Your task to perform on an android device: check the backup settings in the google photos Image 0: 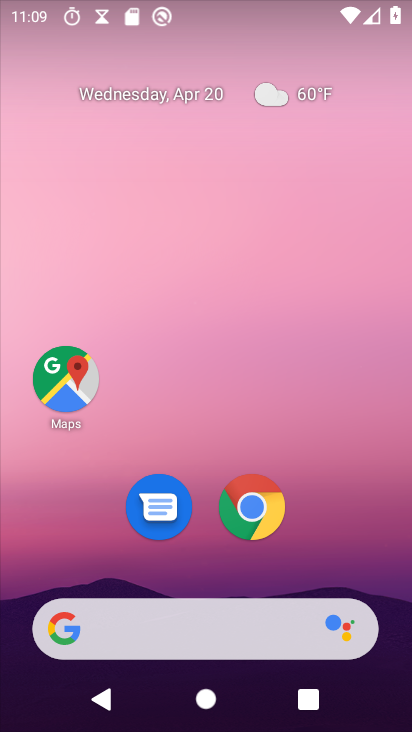
Step 0: drag from (194, 595) to (207, 23)
Your task to perform on an android device: check the backup settings in the google photos Image 1: 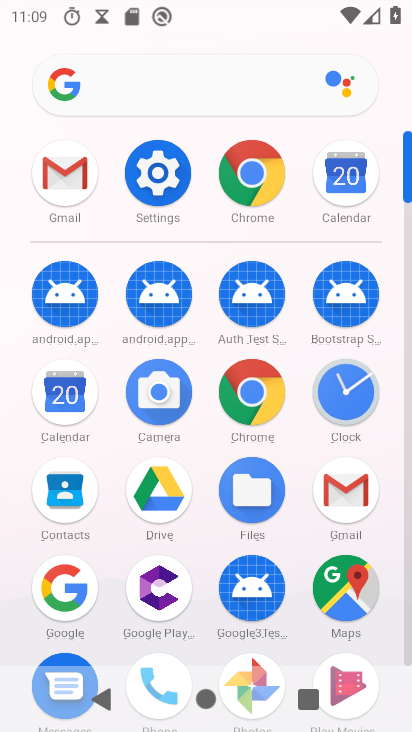
Step 1: click (260, 666)
Your task to perform on an android device: check the backup settings in the google photos Image 2: 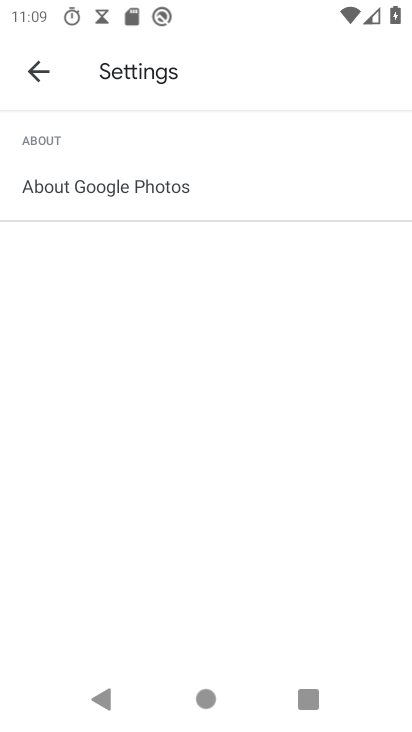
Step 2: click (36, 67)
Your task to perform on an android device: check the backup settings in the google photos Image 3: 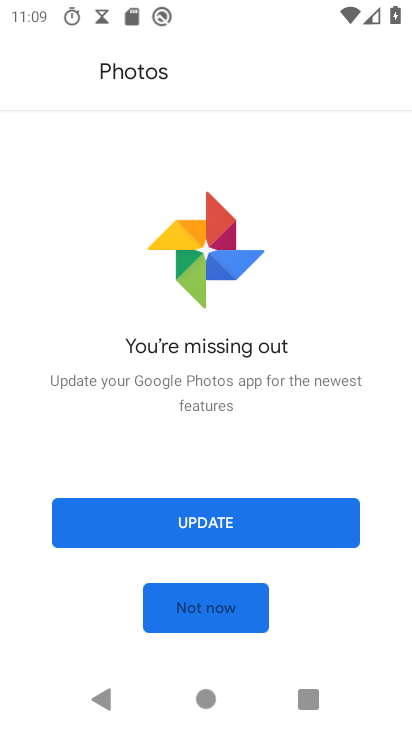
Step 3: click (192, 535)
Your task to perform on an android device: check the backup settings in the google photos Image 4: 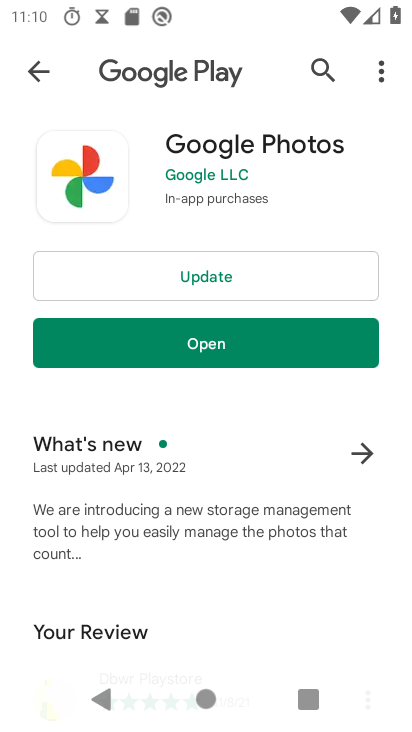
Step 4: click (201, 275)
Your task to perform on an android device: check the backup settings in the google photos Image 5: 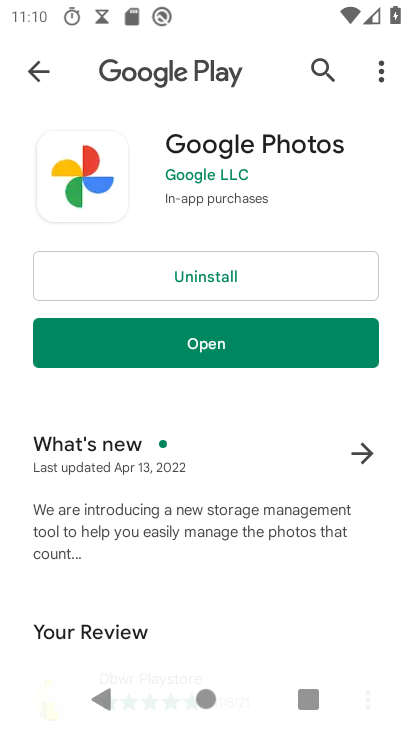
Step 5: click (218, 342)
Your task to perform on an android device: check the backup settings in the google photos Image 6: 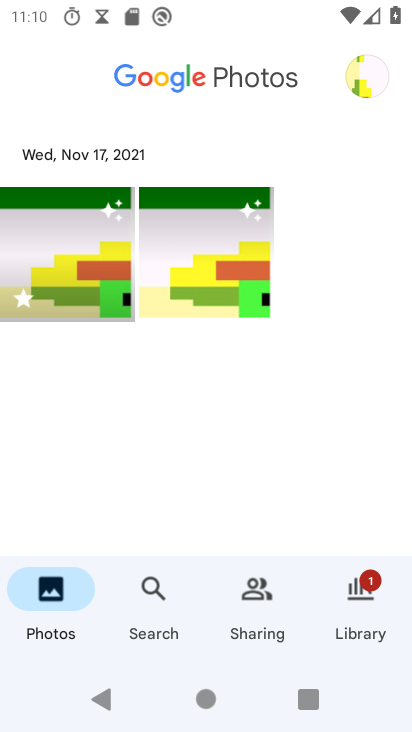
Step 6: click (364, 82)
Your task to perform on an android device: check the backup settings in the google photos Image 7: 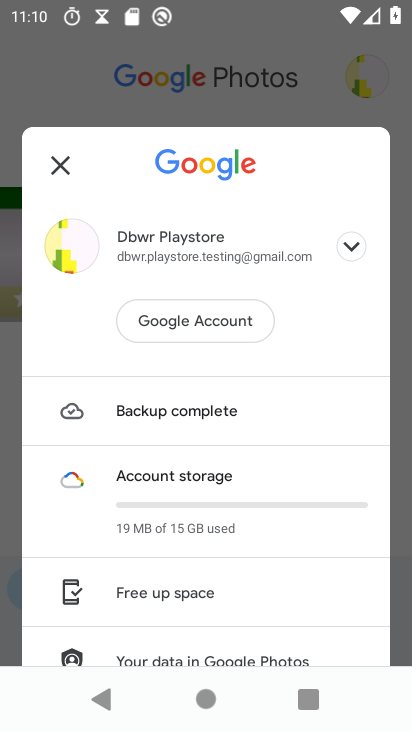
Step 7: drag from (146, 580) to (166, 141)
Your task to perform on an android device: check the backup settings in the google photos Image 8: 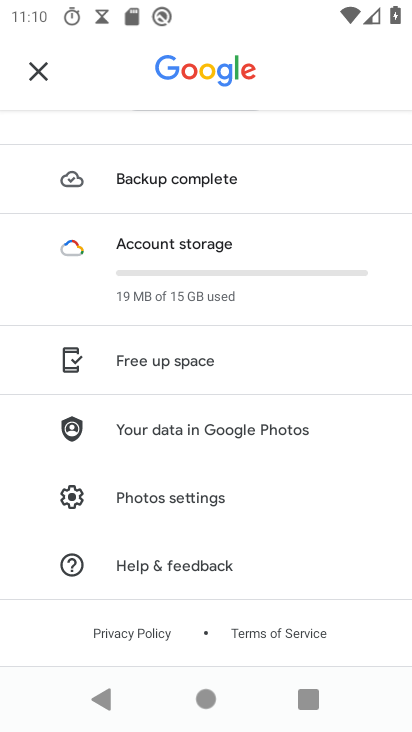
Step 8: drag from (176, 464) to (196, 300)
Your task to perform on an android device: check the backup settings in the google photos Image 9: 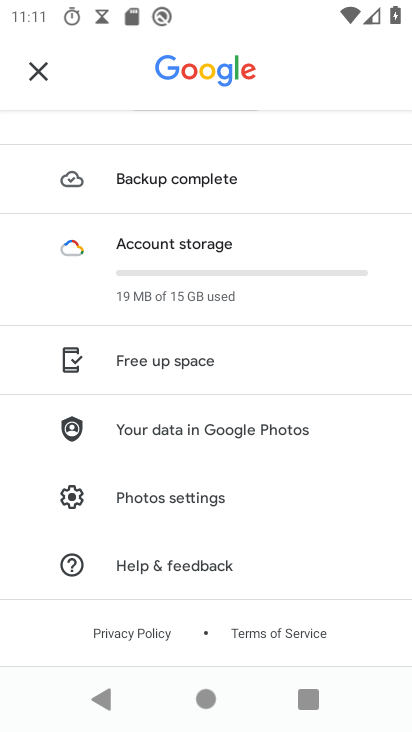
Step 9: click (178, 507)
Your task to perform on an android device: check the backup settings in the google photos Image 10: 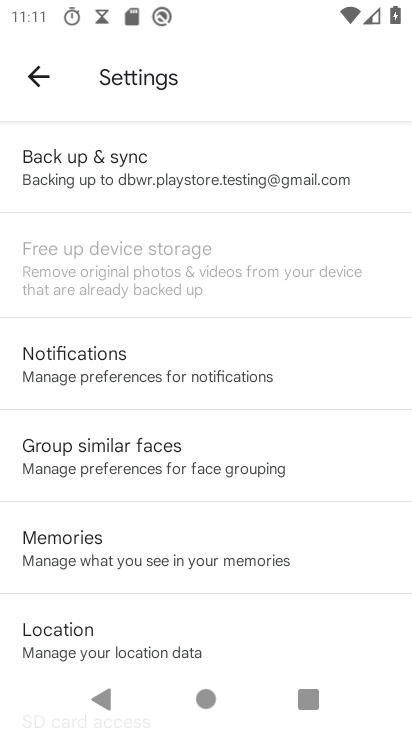
Step 10: click (54, 152)
Your task to perform on an android device: check the backup settings in the google photos Image 11: 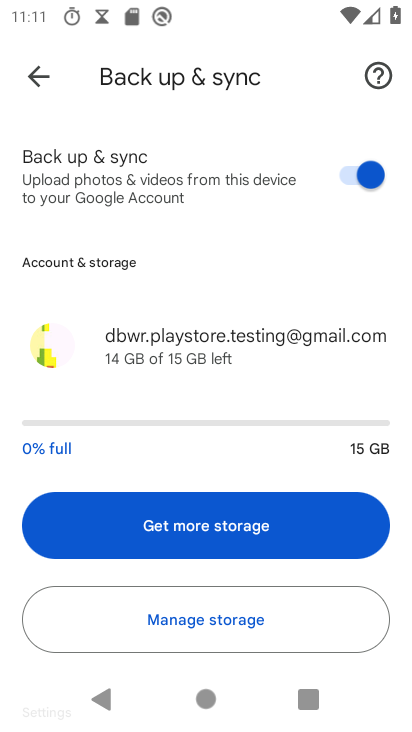
Step 11: task complete